Your task to perform on an android device: Open the web browser Image 0: 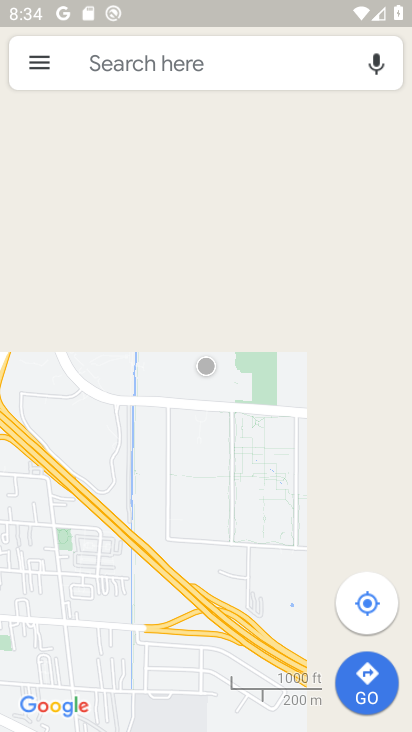
Step 0: press back button
Your task to perform on an android device: Open the web browser Image 1: 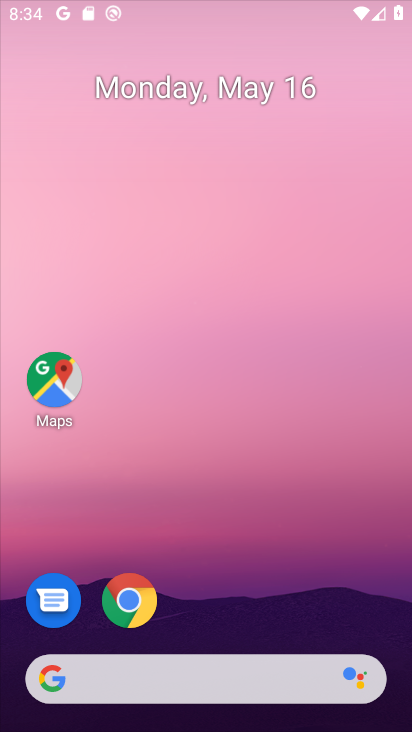
Step 1: drag from (279, 657) to (260, 10)
Your task to perform on an android device: Open the web browser Image 2: 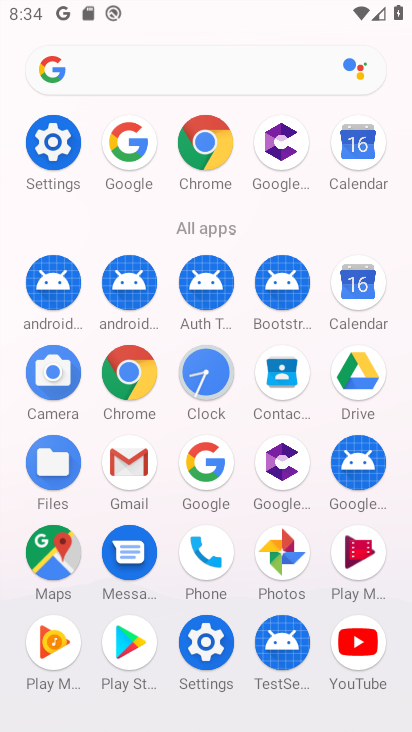
Step 2: click (198, 151)
Your task to perform on an android device: Open the web browser Image 3: 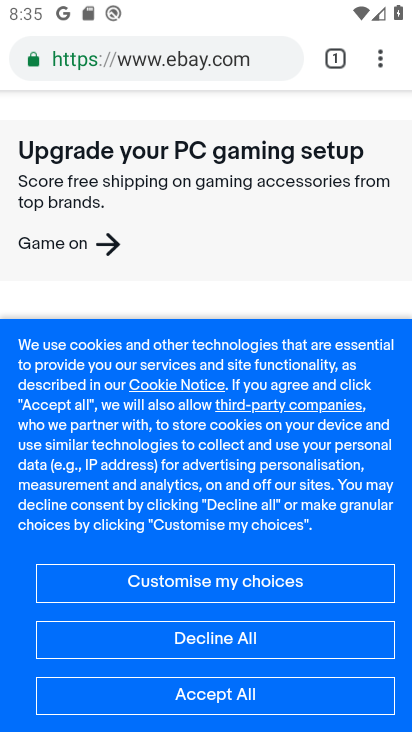
Step 3: click (198, 143)
Your task to perform on an android device: Open the web browser Image 4: 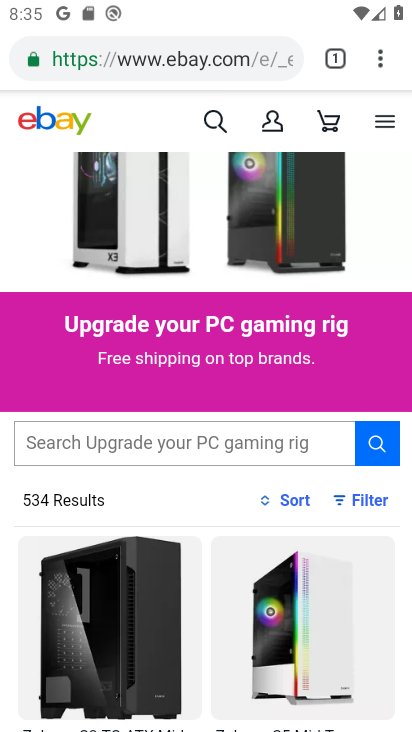
Step 4: drag from (385, 47) to (185, 122)
Your task to perform on an android device: Open the web browser Image 5: 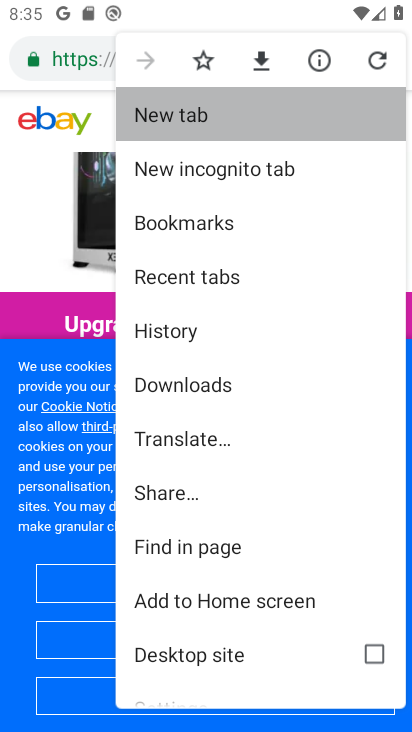
Step 5: click (187, 113)
Your task to perform on an android device: Open the web browser Image 6: 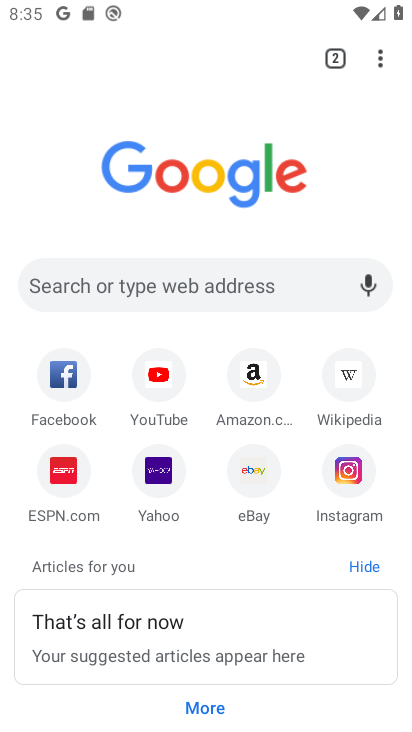
Step 6: click (153, 294)
Your task to perform on an android device: Open the web browser Image 7: 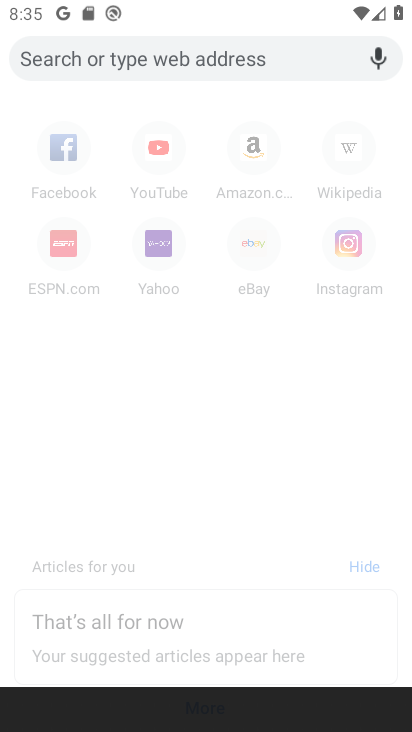
Step 7: task complete